Your task to perform on an android device: Open notification settings Image 0: 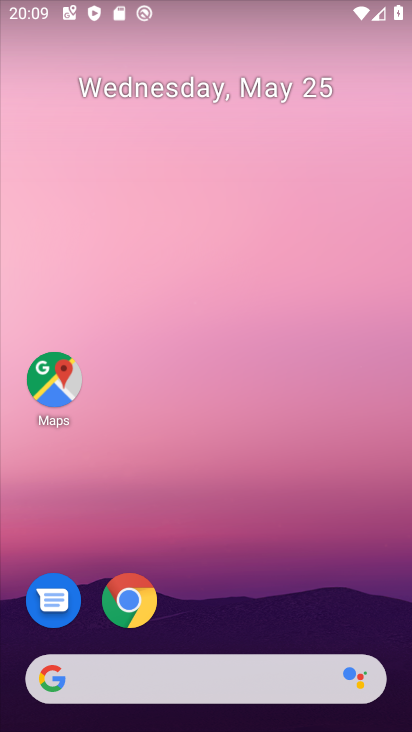
Step 0: drag from (334, 591) to (281, 127)
Your task to perform on an android device: Open notification settings Image 1: 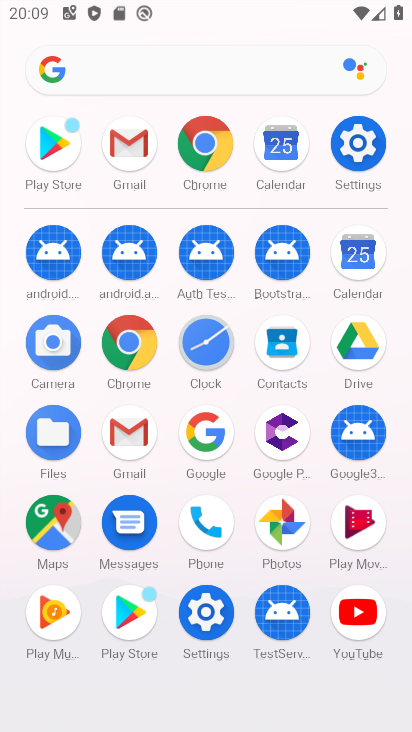
Step 1: click (377, 156)
Your task to perform on an android device: Open notification settings Image 2: 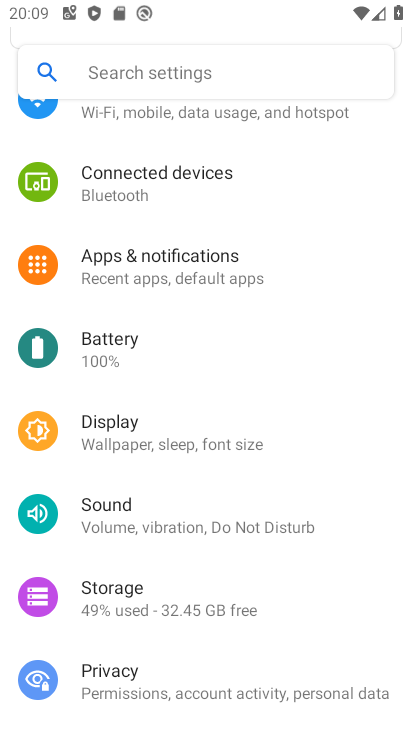
Step 2: click (205, 267)
Your task to perform on an android device: Open notification settings Image 3: 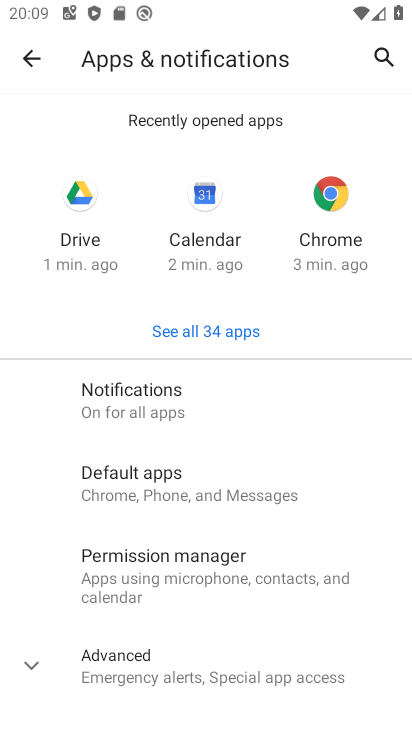
Step 3: click (97, 398)
Your task to perform on an android device: Open notification settings Image 4: 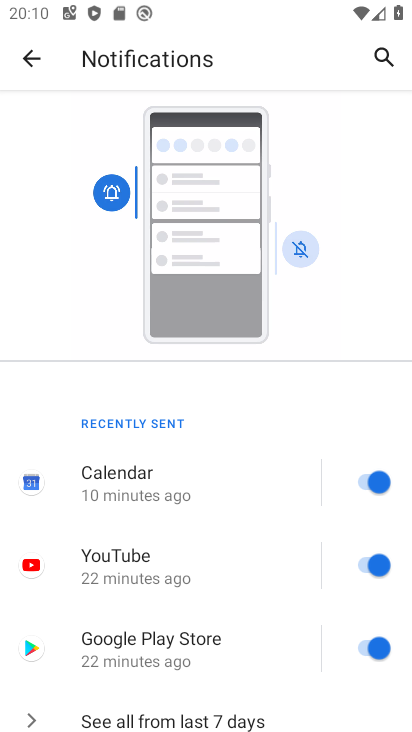
Step 4: task complete